Your task to perform on an android device: Open settings Image 0: 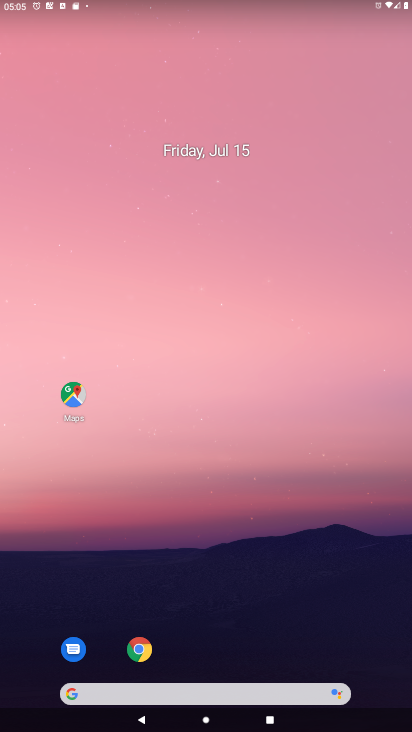
Step 0: drag from (383, 660) to (356, 136)
Your task to perform on an android device: Open settings Image 1: 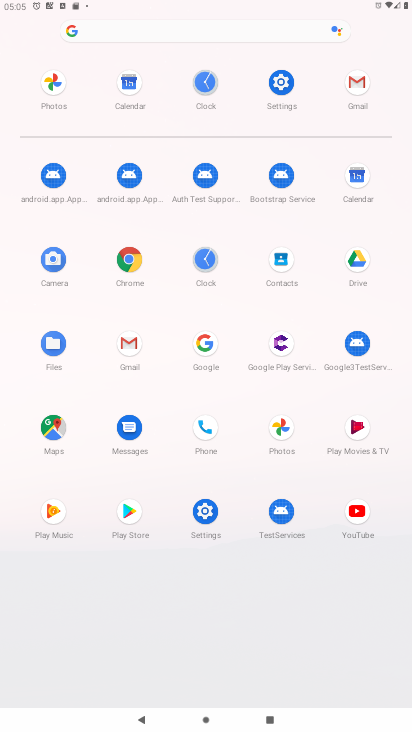
Step 1: click (206, 511)
Your task to perform on an android device: Open settings Image 2: 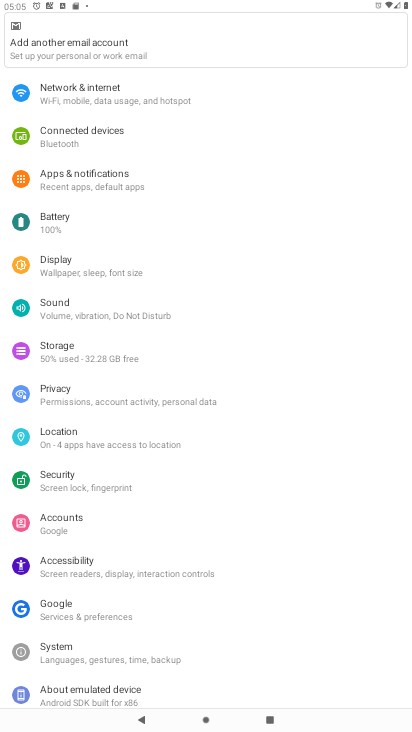
Step 2: task complete